Your task to perform on an android device: choose inbox layout in the gmail app Image 0: 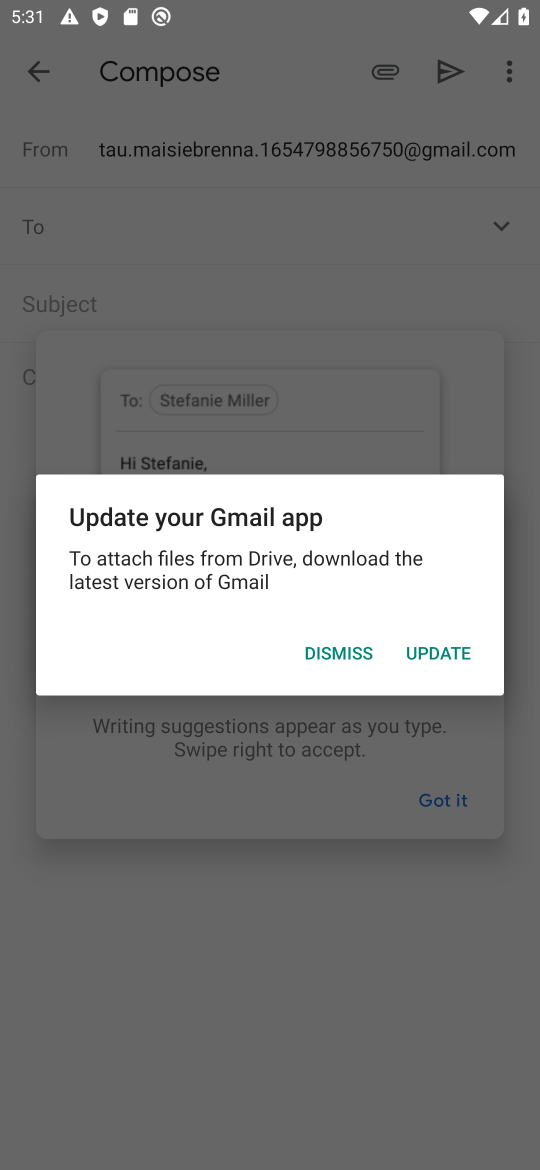
Step 0: press home button
Your task to perform on an android device: choose inbox layout in the gmail app Image 1: 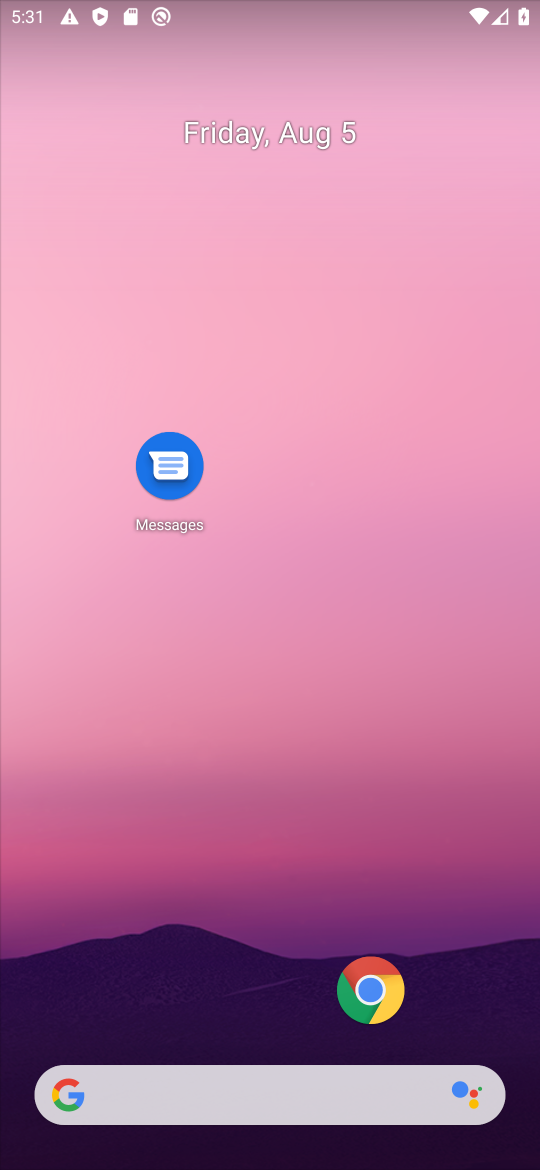
Step 1: drag from (212, 1084) to (261, 458)
Your task to perform on an android device: choose inbox layout in the gmail app Image 2: 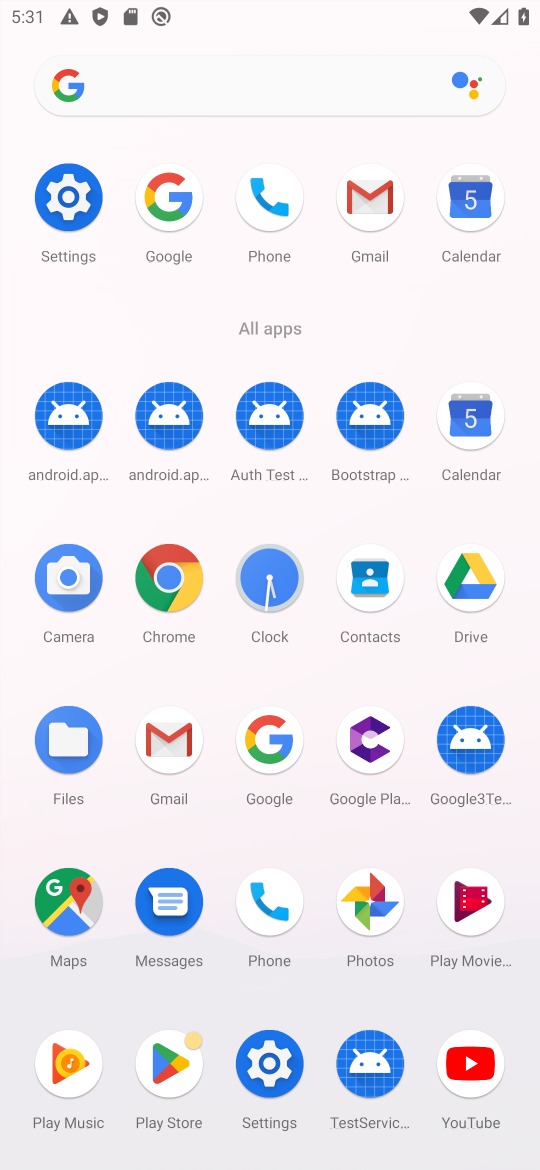
Step 2: click (168, 749)
Your task to perform on an android device: choose inbox layout in the gmail app Image 3: 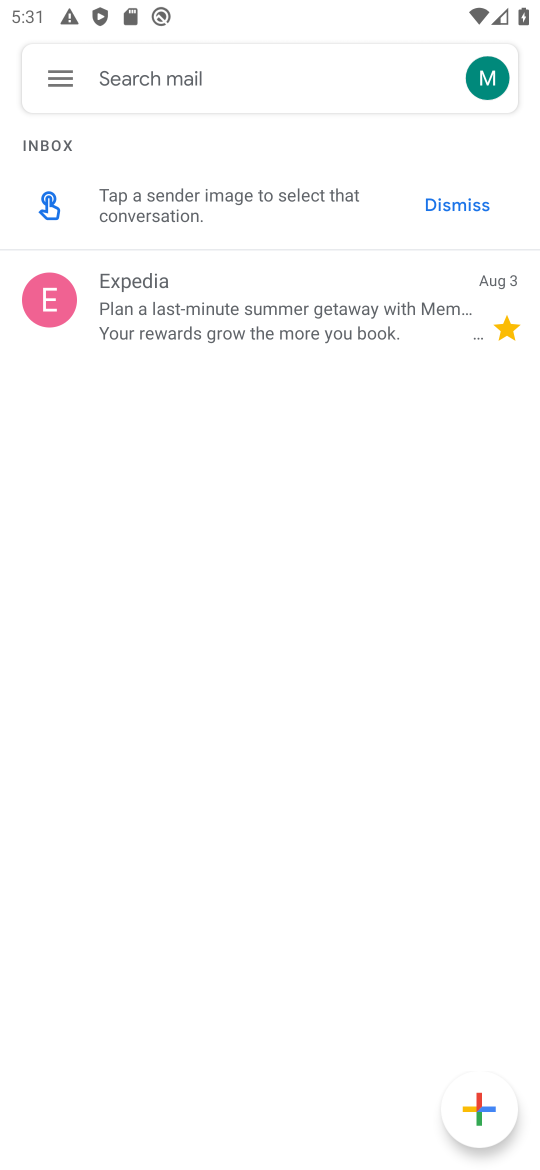
Step 3: click (56, 84)
Your task to perform on an android device: choose inbox layout in the gmail app Image 4: 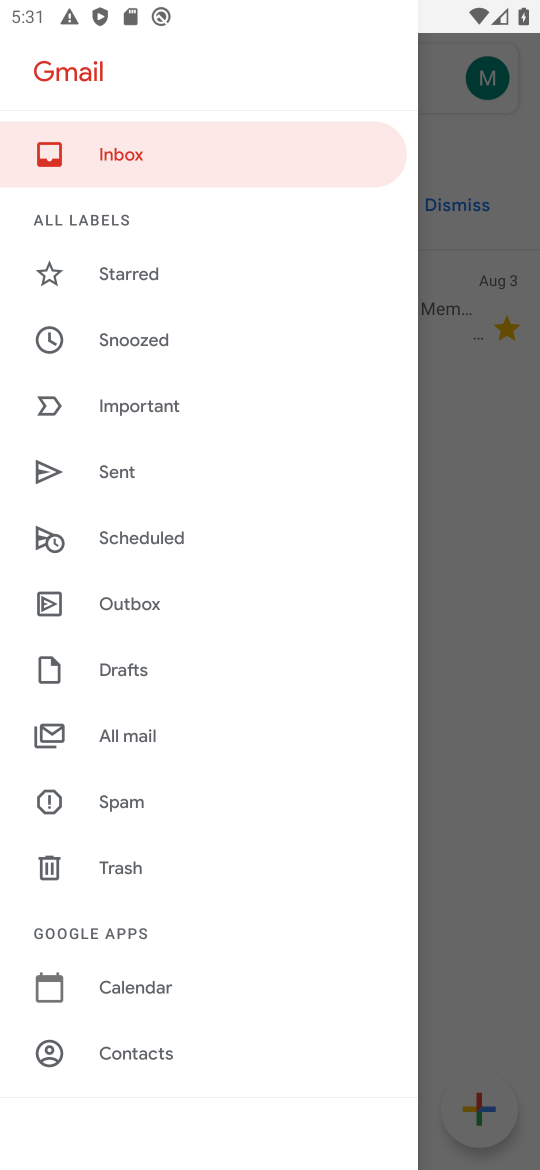
Step 4: drag from (156, 1102) to (134, 583)
Your task to perform on an android device: choose inbox layout in the gmail app Image 5: 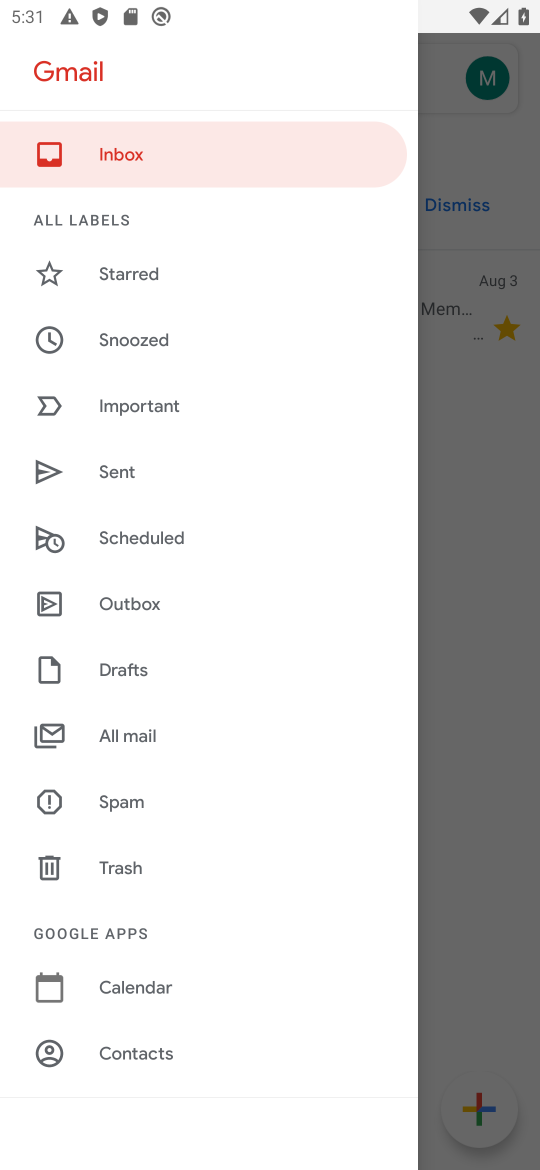
Step 5: drag from (161, 891) to (221, 460)
Your task to perform on an android device: choose inbox layout in the gmail app Image 6: 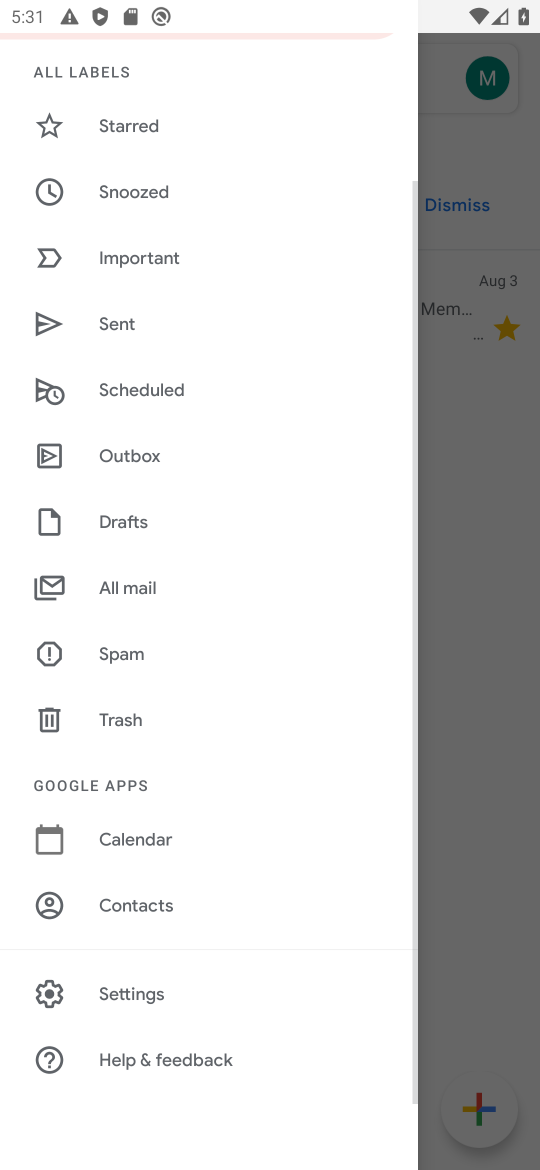
Step 6: click (139, 986)
Your task to perform on an android device: choose inbox layout in the gmail app Image 7: 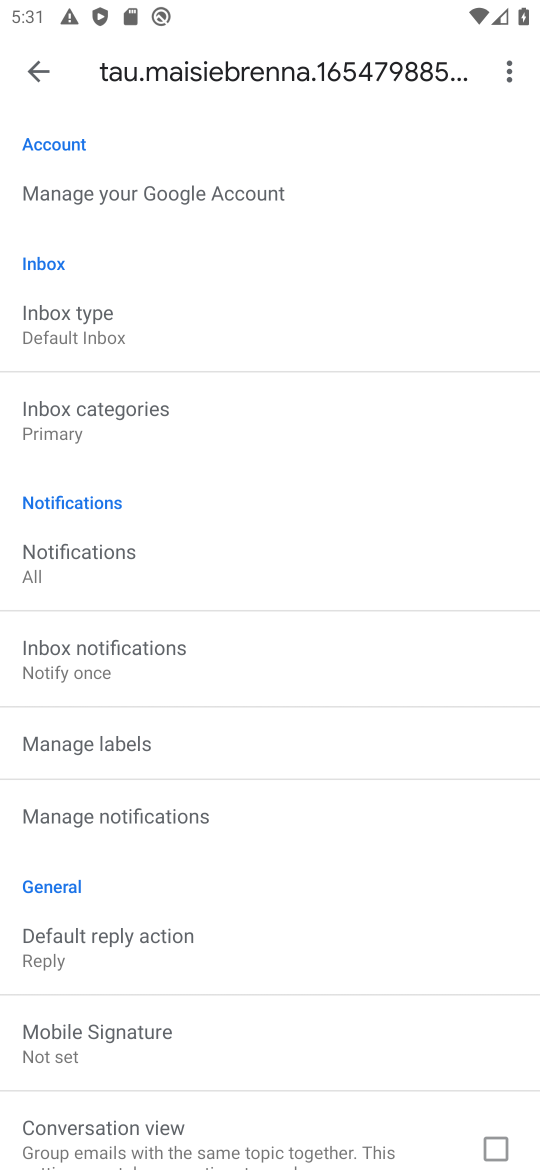
Step 7: click (78, 335)
Your task to perform on an android device: choose inbox layout in the gmail app Image 8: 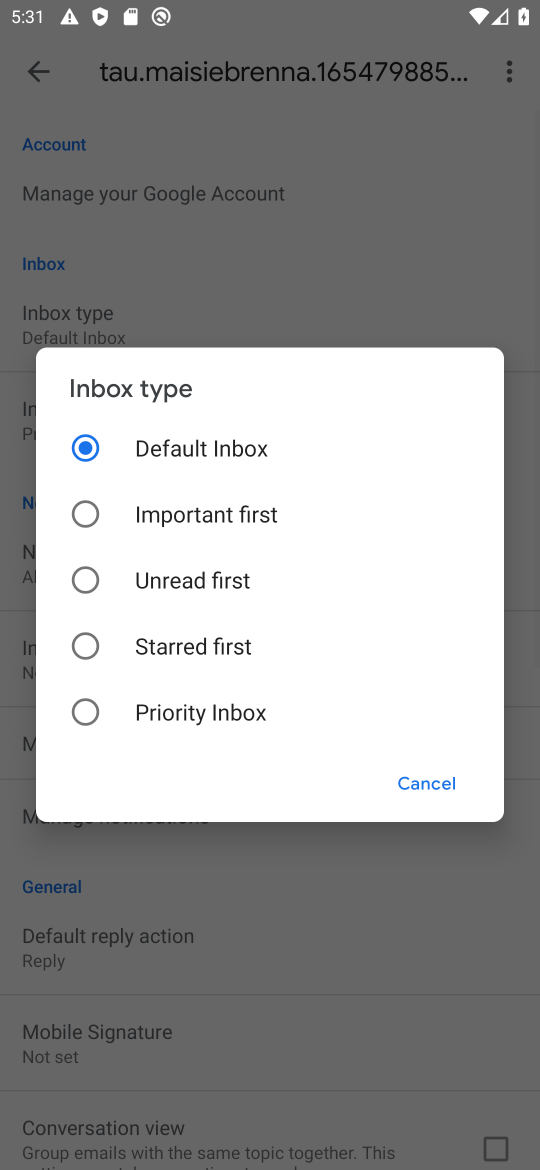
Step 8: click (151, 509)
Your task to perform on an android device: choose inbox layout in the gmail app Image 9: 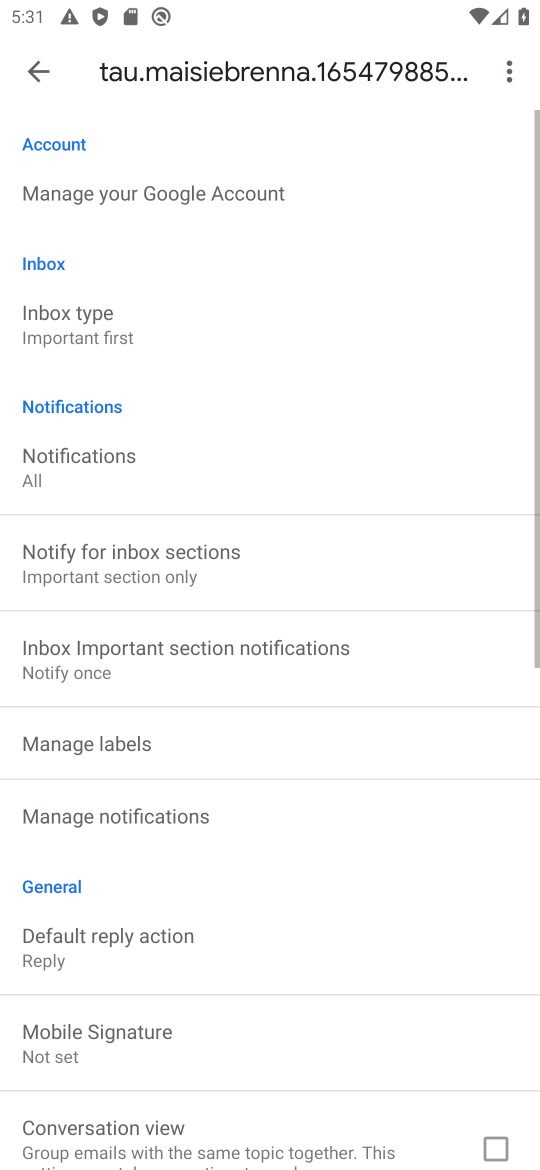
Step 9: task complete